Your task to perform on an android device: search for starred emails in the gmail app Image 0: 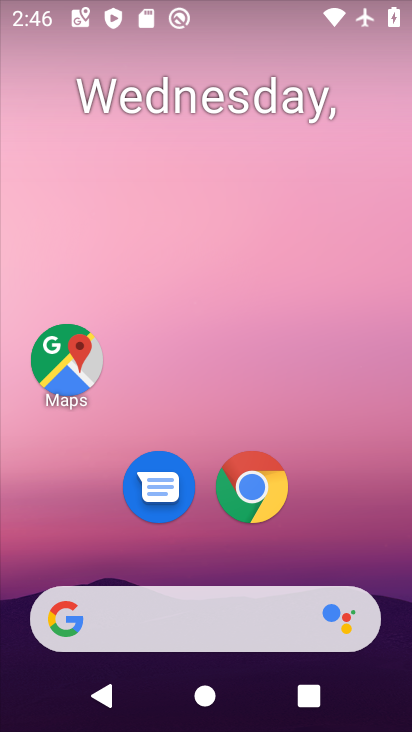
Step 0: drag from (369, 520) to (338, 38)
Your task to perform on an android device: search for starred emails in the gmail app Image 1: 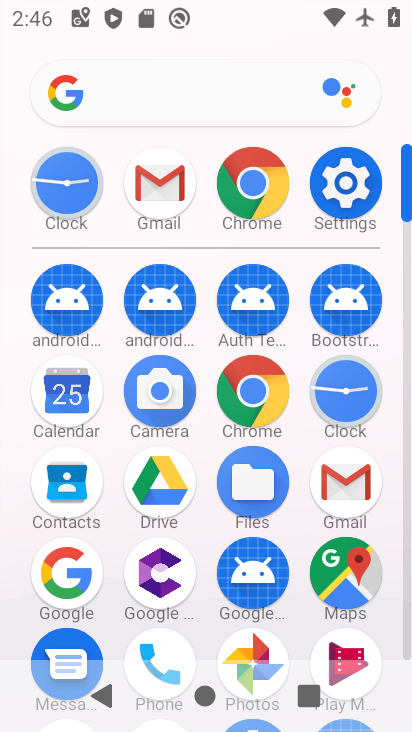
Step 1: click (161, 175)
Your task to perform on an android device: search for starred emails in the gmail app Image 2: 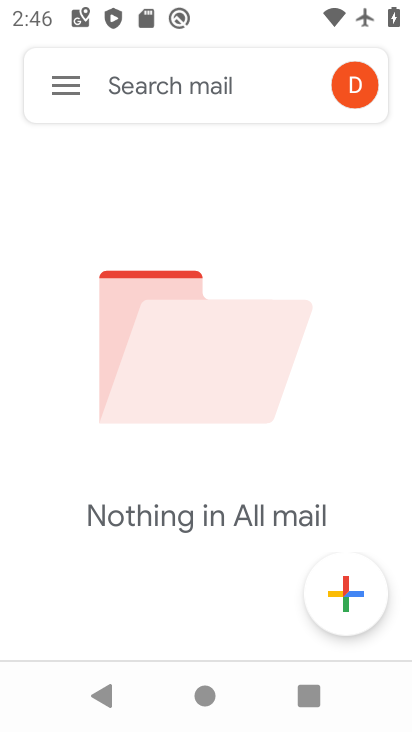
Step 2: click (79, 79)
Your task to perform on an android device: search for starred emails in the gmail app Image 3: 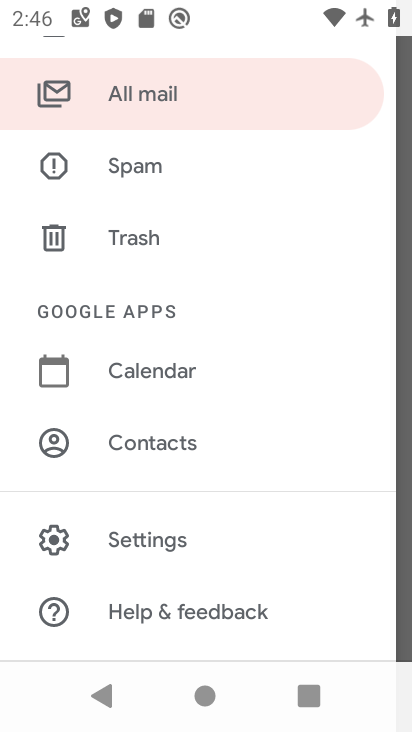
Step 3: drag from (215, 486) to (191, 231)
Your task to perform on an android device: search for starred emails in the gmail app Image 4: 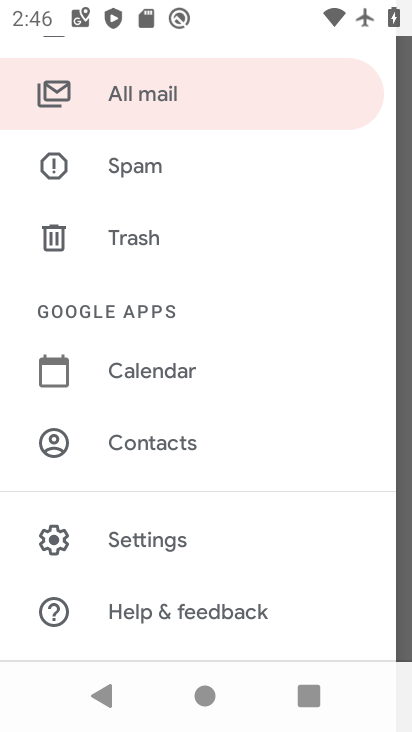
Step 4: drag from (252, 381) to (295, 471)
Your task to perform on an android device: search for starred emails in the gmail app Image 5: 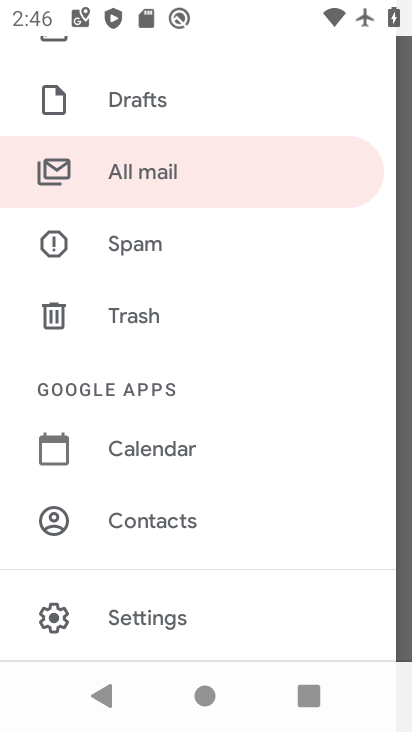
Step 5: drag from (294, 372) to (334, 620)
Your task to perform on an android device: search for starred emails in the gmail app Image 6: 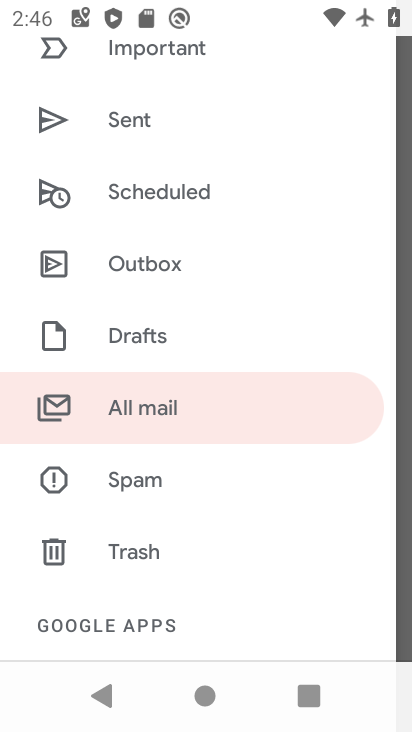
Step 6: drag from (223, 175) to (270, 547)
Your task to perform on an android device: search for starred emails in the gmail app Image 7: 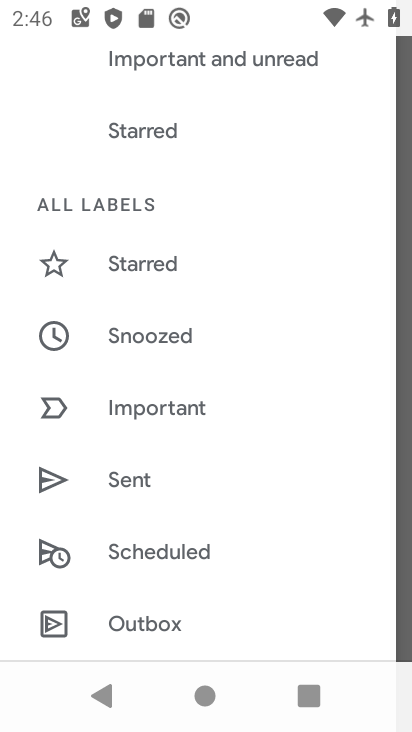
Step 7: click (156, 268)
Your task to perform on an android device: search for starred emails in the gmail app Image 8: 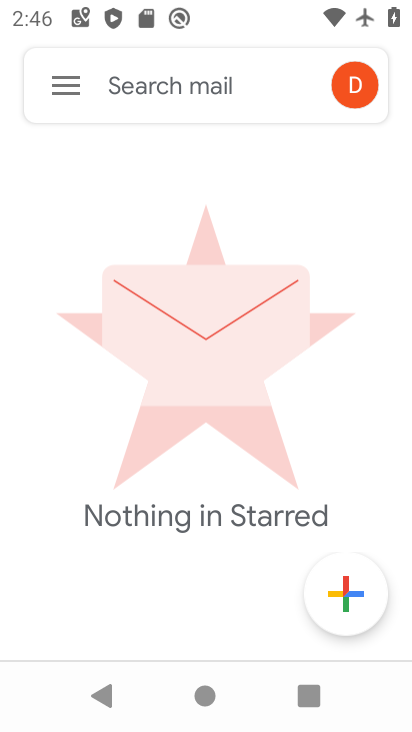
Step 8: task complete